Your task to perform on an android device: See recent photos Image 0: 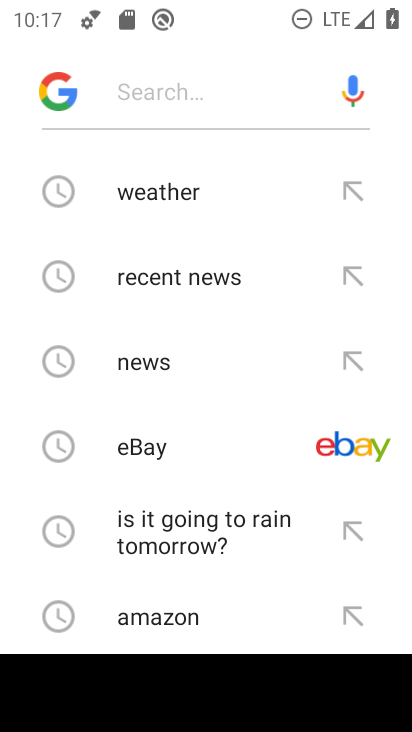
Step 0: press home button
Your task to perform on an android device: See recent photos Image 1: 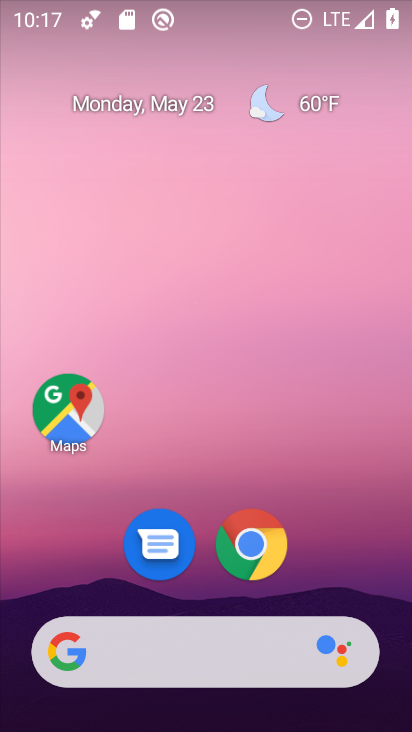
Step 1: drag from (319, 591) to (259, 245)
Your task to perform on an android device: See recent photos Image 2: 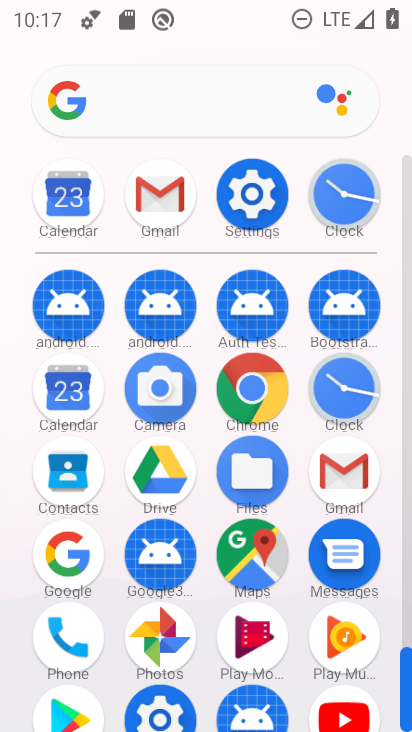
Step 2: click (170, 647)
Your task to perform on an android device: See recent photos Image 3: 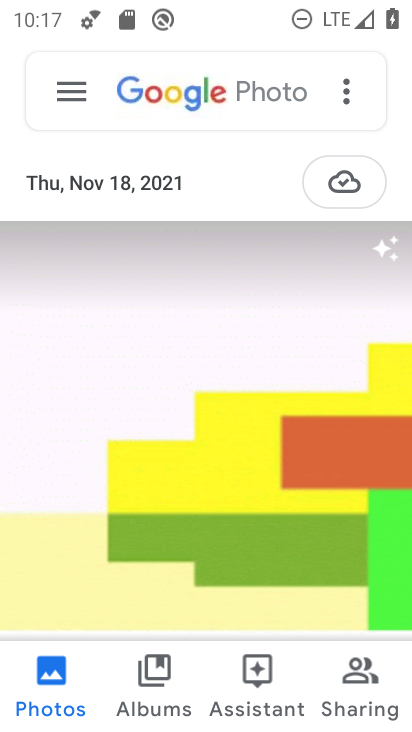
Step 3: click (55, 686)
Your task to perform on an android device: See recent photos Image 4: 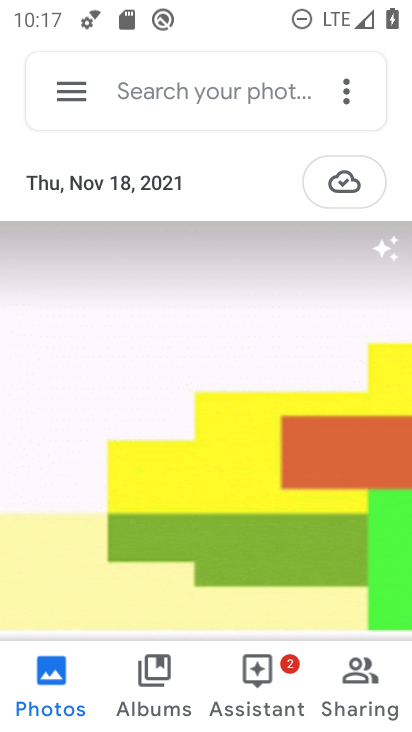
Step 4: task complete